Your task to perform on an android device: Open Google Chrome and open the bookmarks view Image 0: 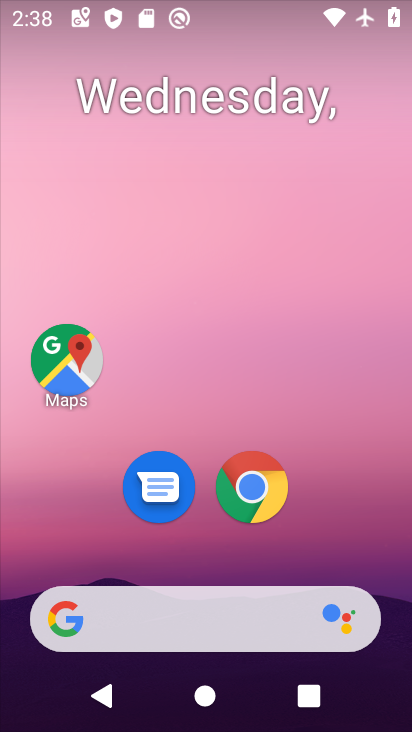
Step 0: drag from (389, 583) to (396, 125)
Your task to perform on an android device: Open Google Chrome and open the bookmarks view Image 1: 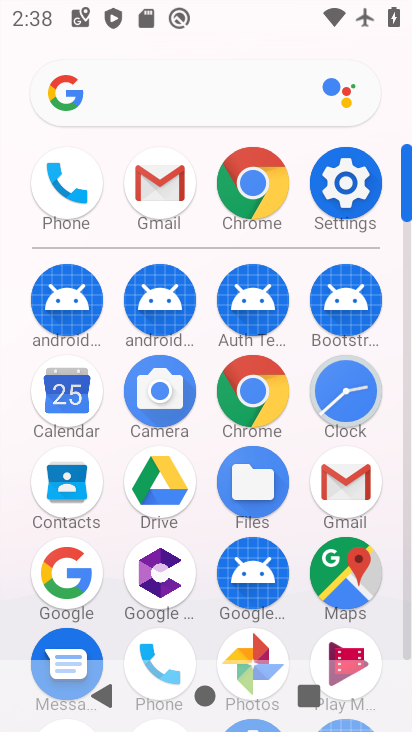
Step 1: click (254, 178)
Your task to perform on an android device: Open Google Chrome and open the bookmarks view Image 2: 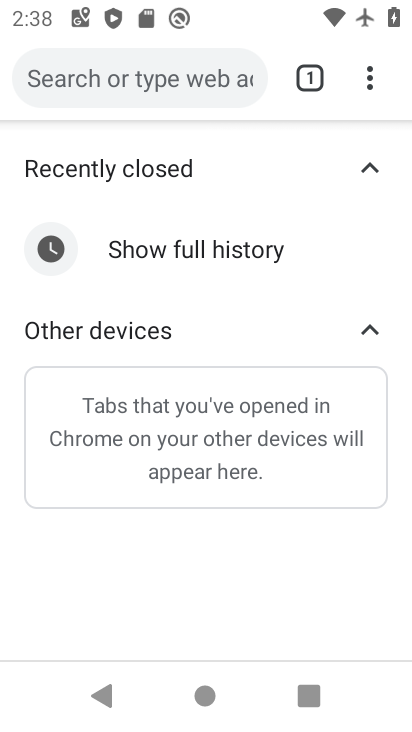
Step 2: task complete